Your task to perform on an android device: turn off translation in the chrome app Image 0: 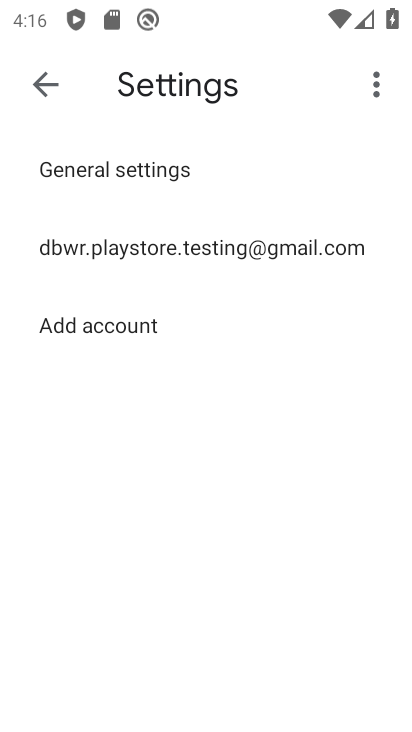
Step 0: press home button
Your task to perform on an android device: turn off translation in the chrome app Image 1: 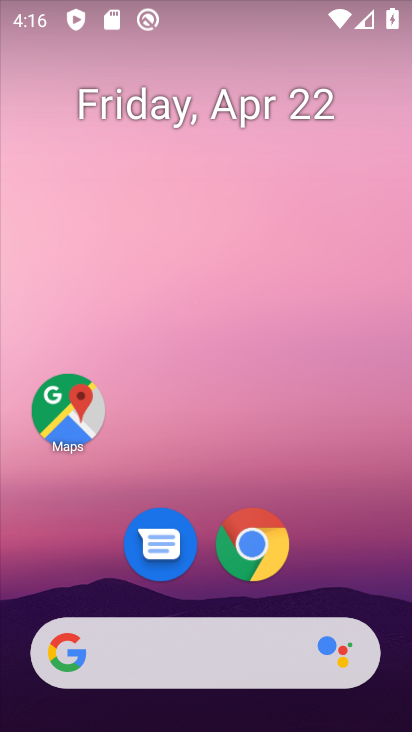
Step 1: click (248, 553)
Your task to perform on an android device: turn off translation in the chrome app Image 2: 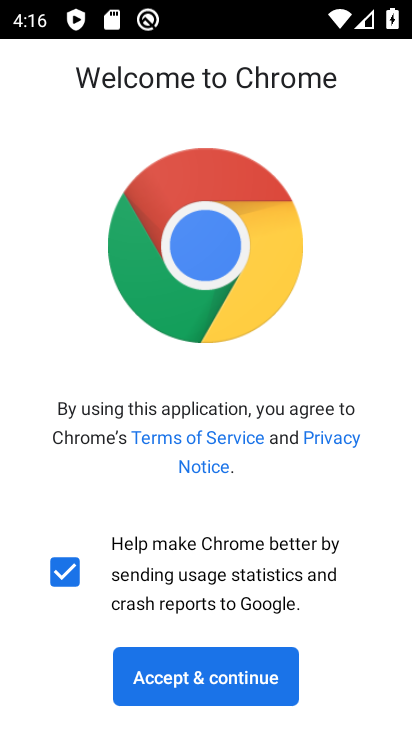
Step 2: click (254, 680)
Your task to perform on an android device: turn off translation in the chrome app Image 3: 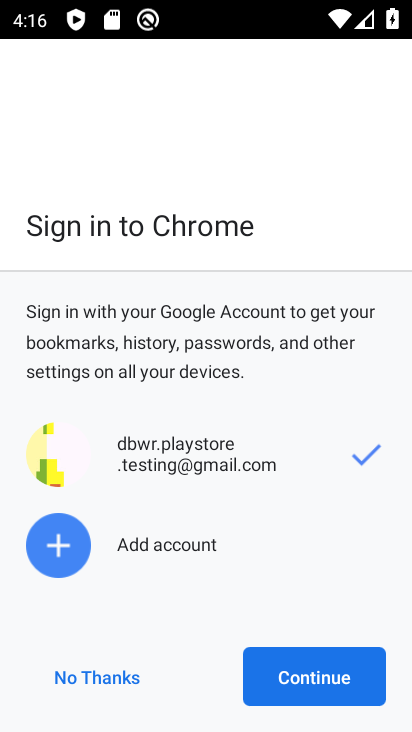
Step 3: click (286, 684)
Your task to perform on an android device: turn off translation in the chrome app Image 4: 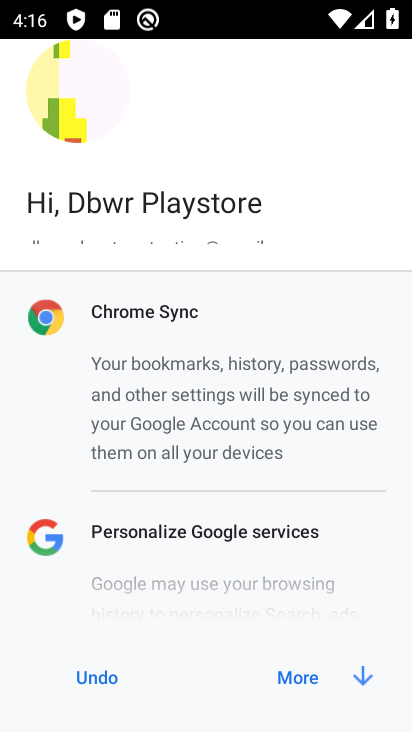
Step 4: click (286, 684)
Your task to perform on an android device: turn off translation in the chrome app Image 5: 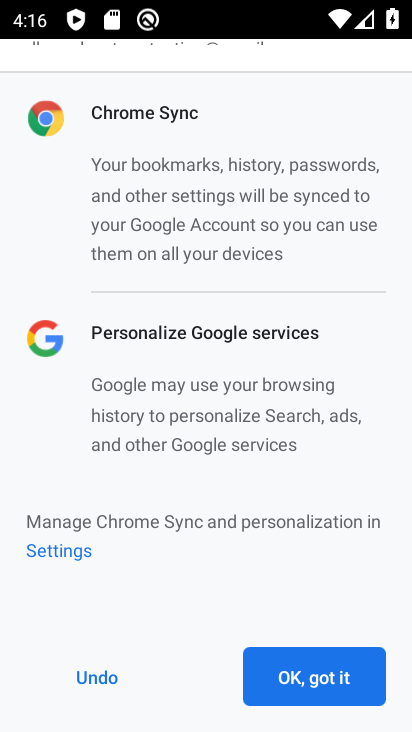
Step 5: click (286, 684)
Your task to perform on an android device: turn off translation in the chrome app Image 6: 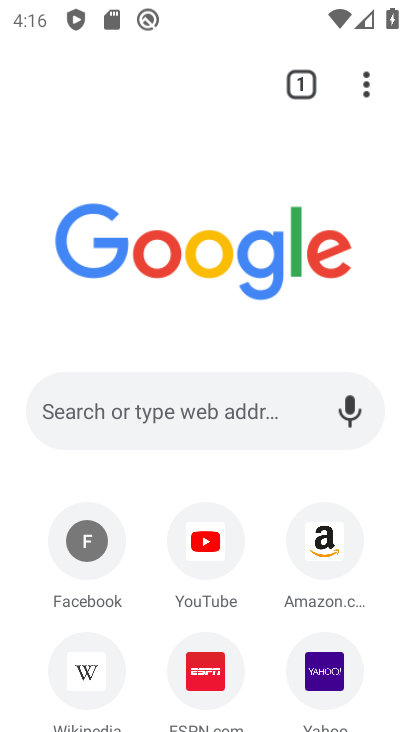
Step 6: click (367, 81)
Your task to perform on an android device: turn off translation in the chrome app Image 7: 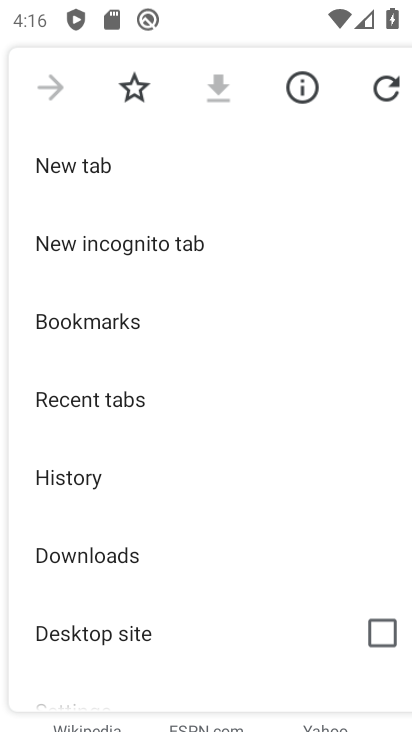
Step 7: drag from (91, 665) to (187, 295)
Your task to perform on an android device: turn off translation in the chrome app Image 8: 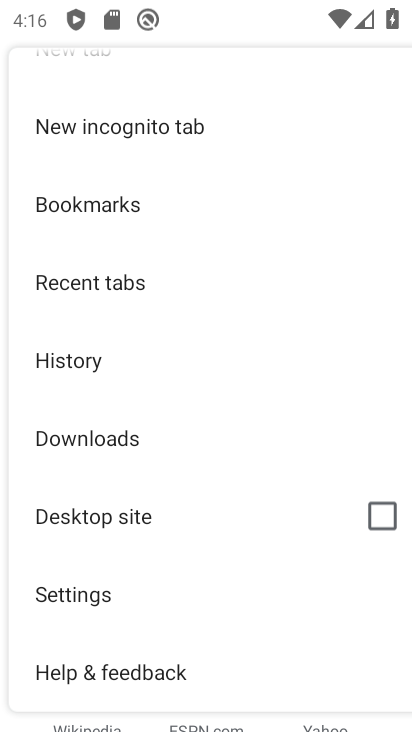
Step 8: click (73, 589)
Your task to perform on an android device: turn off translation in the chrome app Image 9: 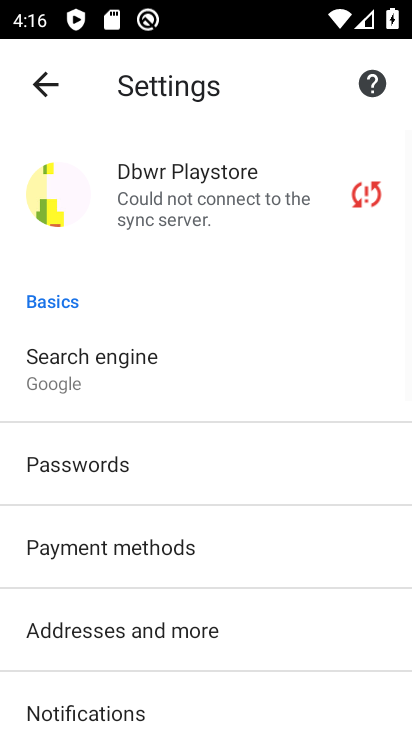
Step 9: drag from (113, 699) to (154, 347)
Your task to perform on an android device: turn off translation in the chrome app Image 10: 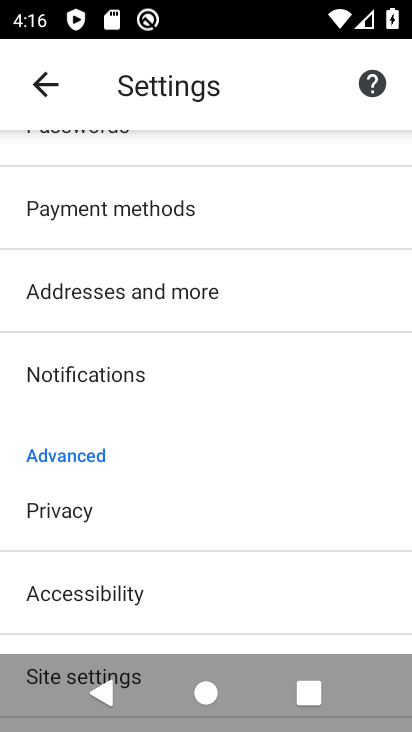
Step 10: drag from (94, 641) to (131, 330)
Your task to perform on an android device: turn off translation in the chrome app Image 11: 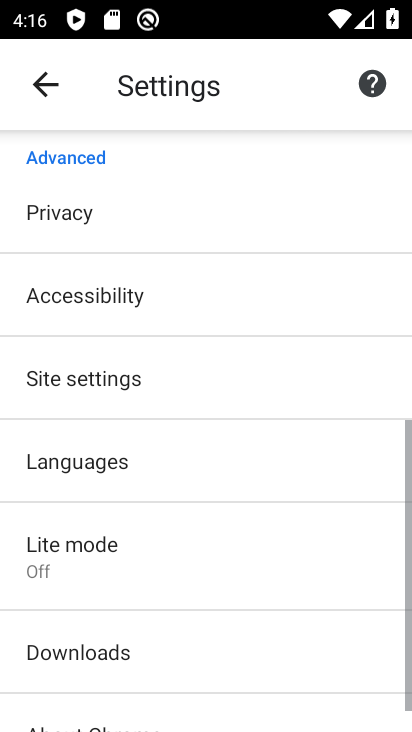
Step 11: click (96, 457)
Your task to perform on an android device: turn off translation in the chrome app Image 12: 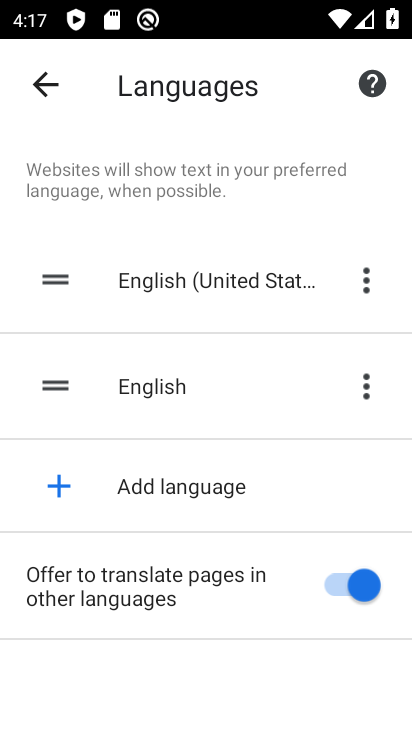
Step 12: click (357, 582)
Your task to perform on an android device: turn off translation in the chrome app Image 13: 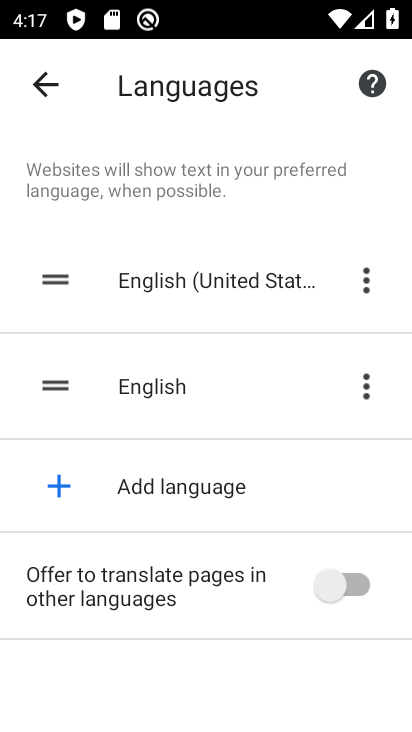
Step 13: task complete